Your task to perform on an android device: turn on data saver in the chrome app Image 0: 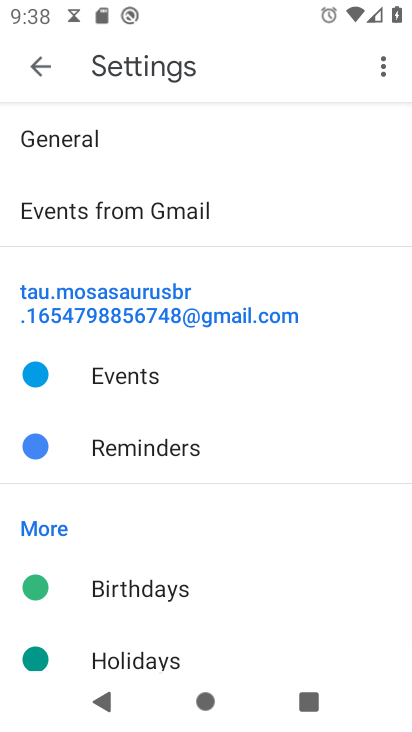
Step 0: press home button
Your task to perform on an android device: turn on data saver in the chrome app Image 1: 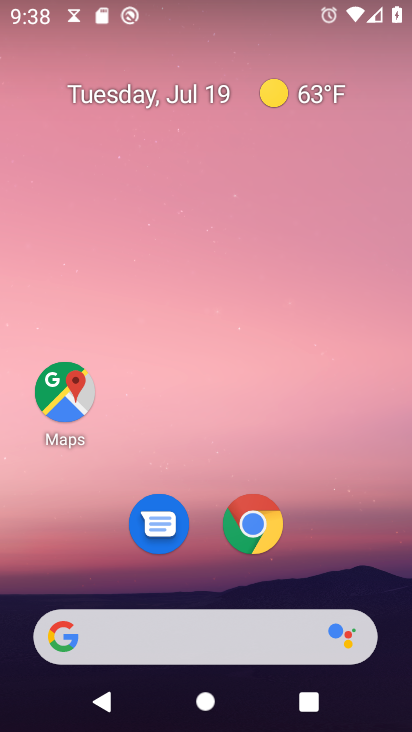
Step 1: click (250, 532)
Your task to perform on an android device: turn on data saver in the chrome app Image 2: 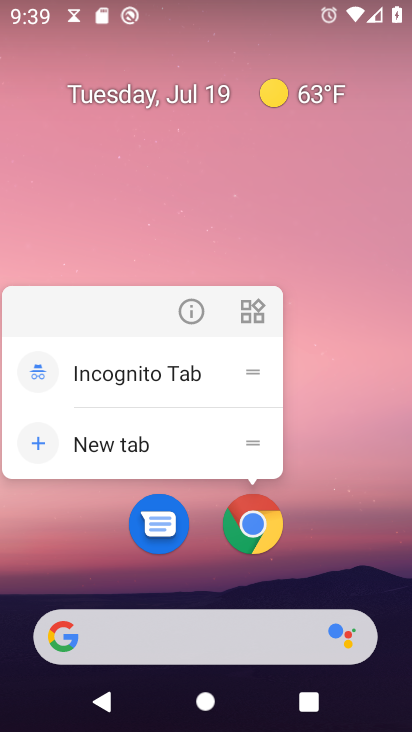
Step 2: click (255, 527)
Your task to perform on an android device: turn on data saver in the chrome app Image 3: 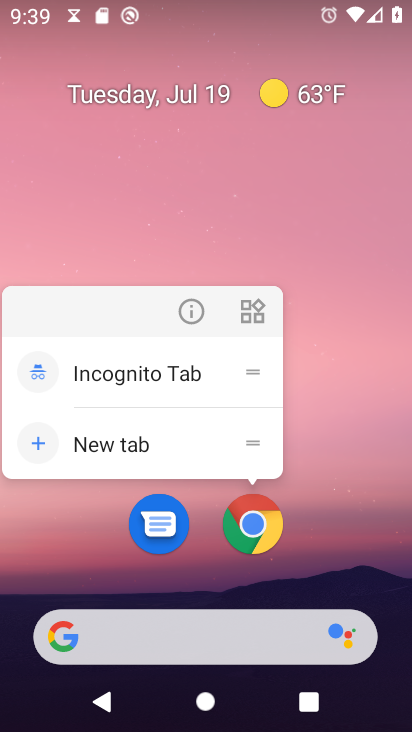
Step 3: click (255, 527)
Your task to perform on an android device: turn on data saver in the chrome app Image 4: 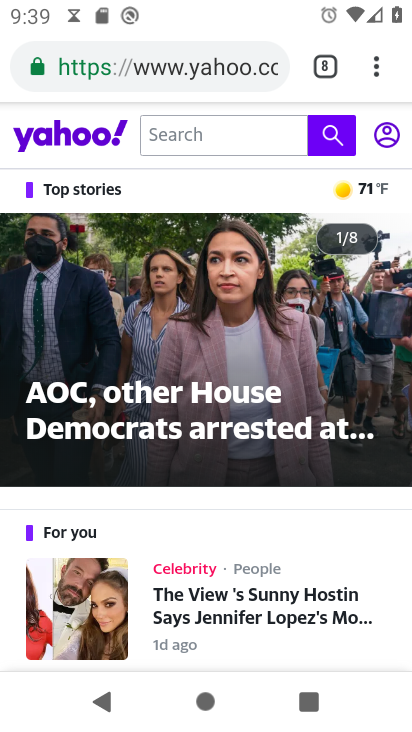
Step 4: drag from (374, 74) to (245, 520)
Your task to perform on an android device: turn on data saver in the chrome app Image 5: 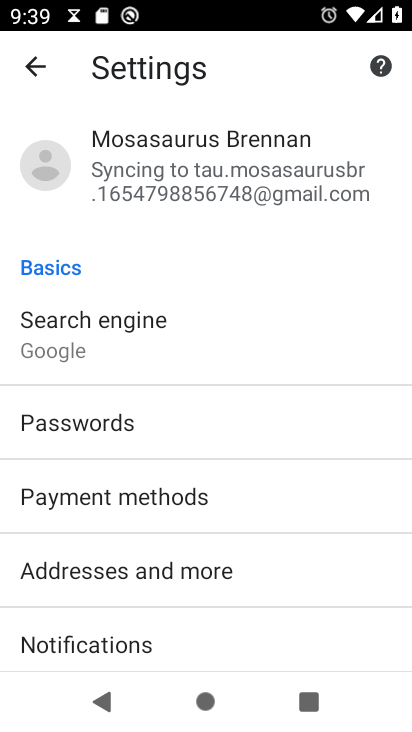
Step 5: drag from (207, 632) to (282, 399)
Your task to perform on an android device: turn on data saver in the chrome app Image 6: 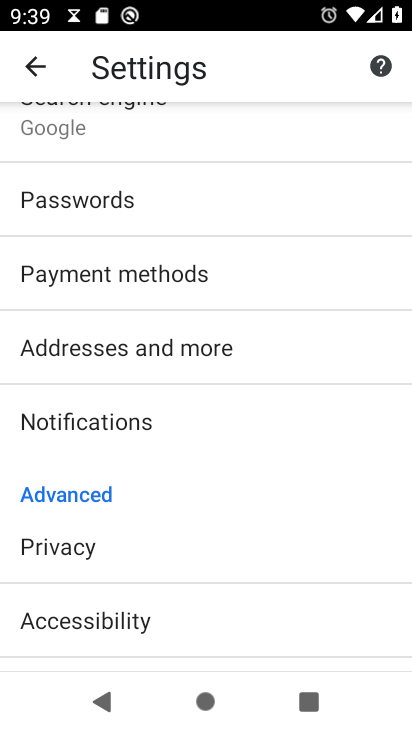
Step 6: drag from (180, 552) to (392, 93)
Your task to perform on an android device: turn on data saver in the chrome app Image 7: 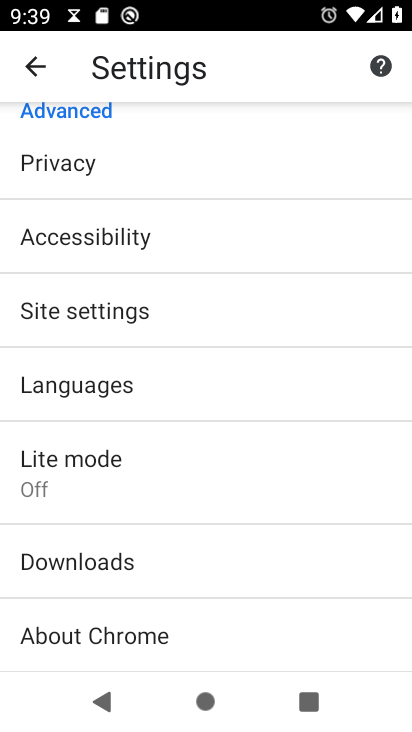
Step 7: click (70, 469)
Your task to perform on an android device: turn on data saver in the chrome app Image 8: 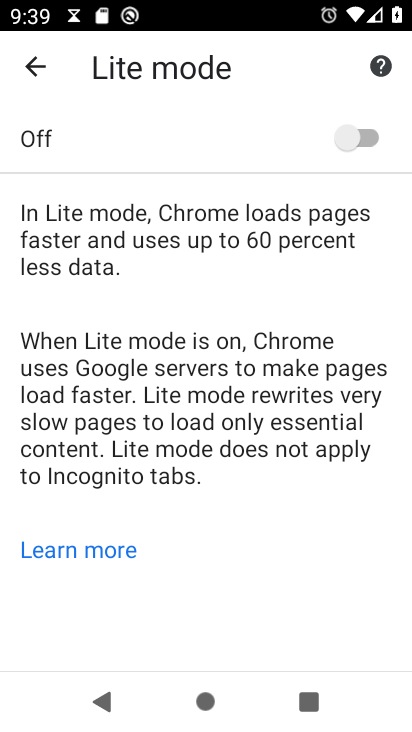
Step 8: click (366, 136)
Your task to perform on an android device: turn on data saver in the chrome app Image 9: 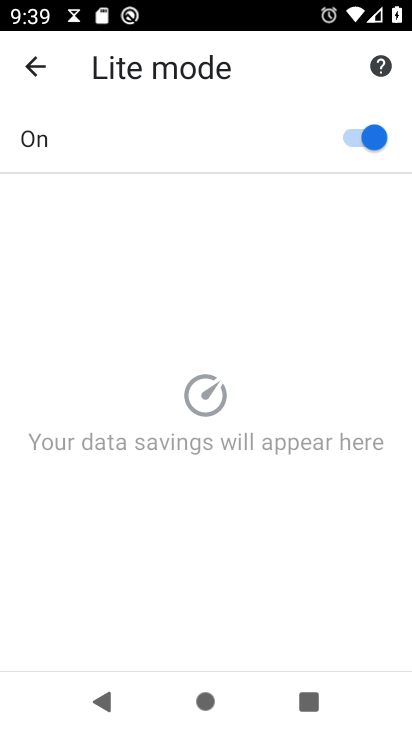
Step 9: task complete